Your task to perform on an android device: choose inbox layout in the gmail app Image 0: 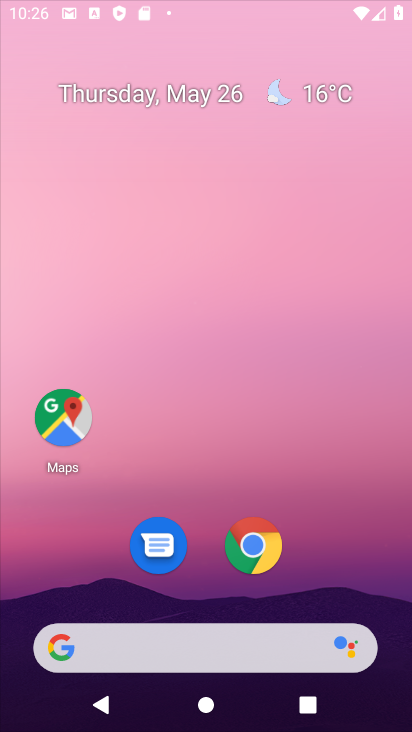
Step 0: press home button
Your task to perform on an android device: choose inbox layout in the gmail app Image 1: 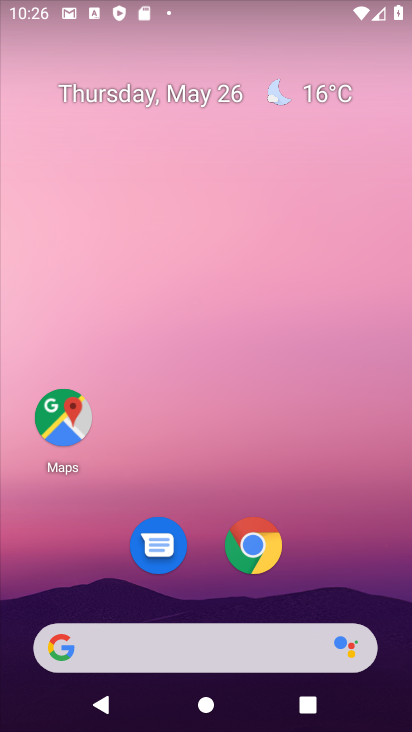
Step 1: drag from (329, 592) to (365, 35)
Your task to perform on an android device: choose inbox layout in the gmail app Image 2: 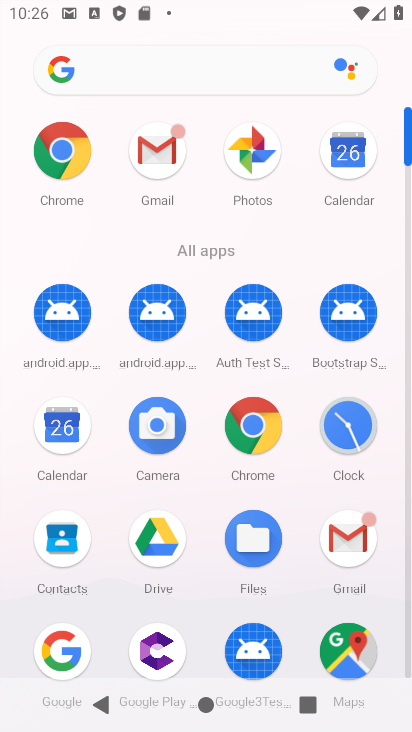
Step 2: click (167, 169)
Your task to perform on an android device: choose inbox layout in the gmail app Image 3: 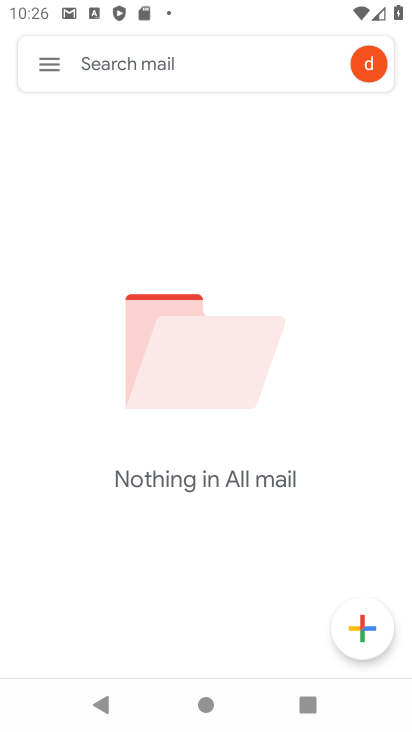
Step 3: click (40, 75)
Your task to perform on an android device: choose inbox layout in the gmail app Image 4: 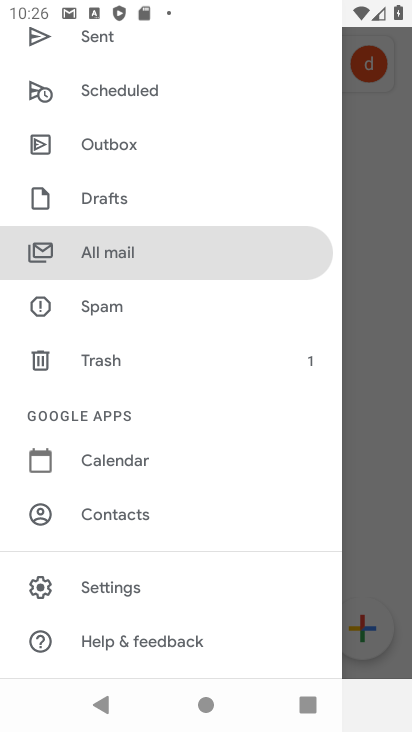
Step 4: click (108, 583)
Your task to perform on an android device: choose inbox layout in the gmail app Image 5: 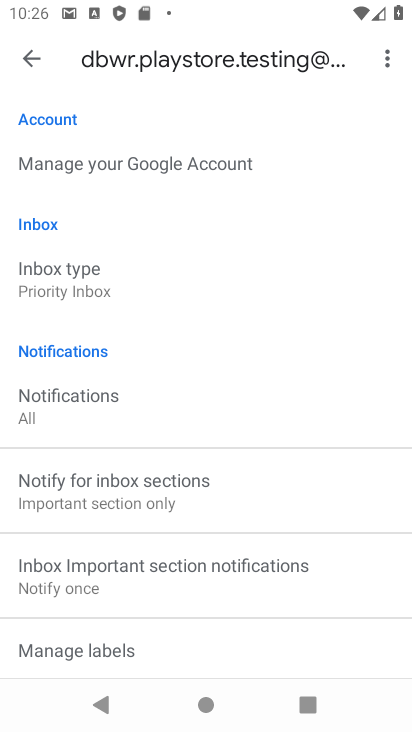
Step 5: task complete